Your task to perform on an android device: Open Google Image 0: 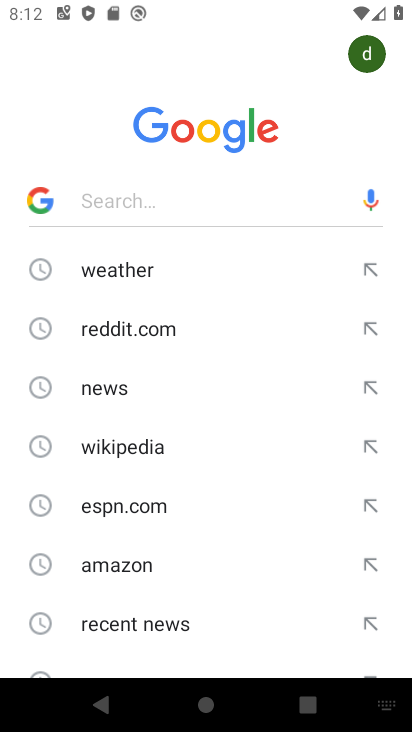
Step 0: task complete